Your task to perform on an android device: open a new tab in the chrome app Image 0: 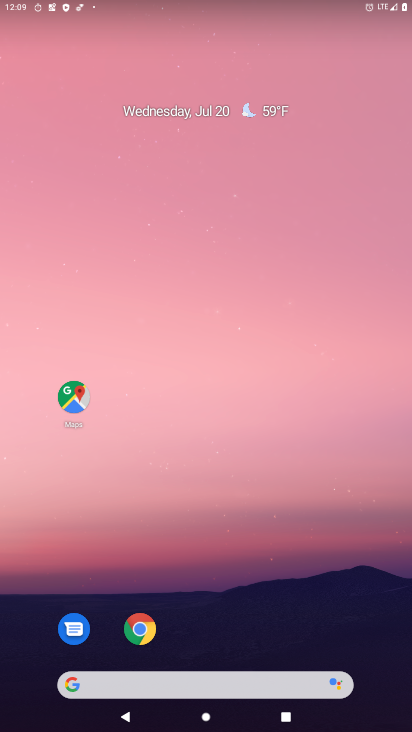
Step 0: drag from (280, 555) to (237, 3)
Your task to perform on an android device: open a new tab in the chrome app Image 1: 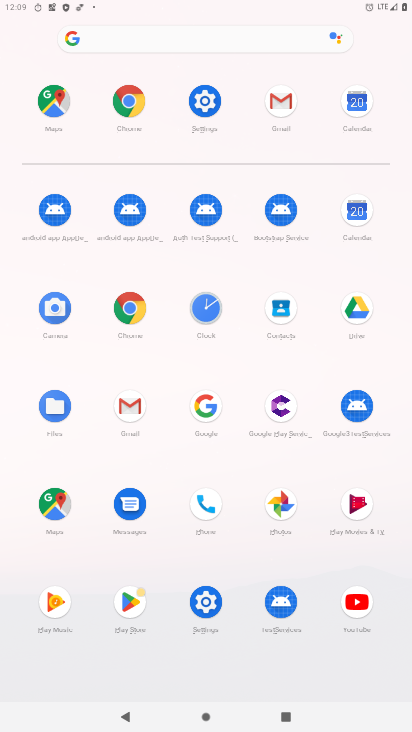
Step 1: click (123, 100)
Your task to perform on an android device: open a new tab in the chrome app Image 2: 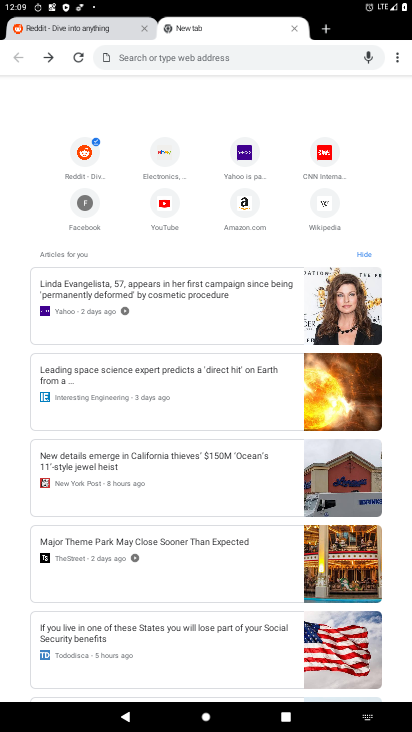
Step 2: task complete